Your task to perform on an android device: What's the weather going to be tomorrow? Image 0: 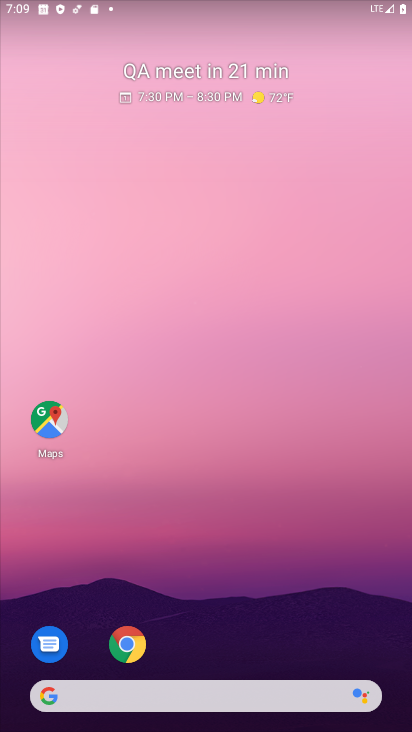
Step 0: drag from (261, 712) to (235, 159)
Your task to perform on an android device: What's the weather going to be tomorrow? Image 1: 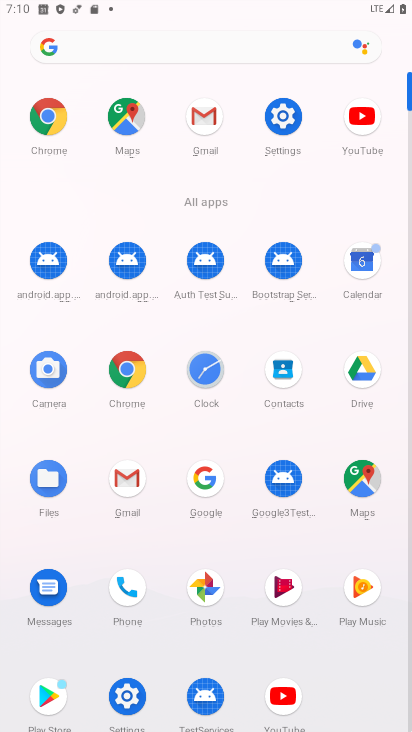
Step 1: click (114, 47)
Your task to perform on an android device: What's the weather going to be tomorrow? Image 2: 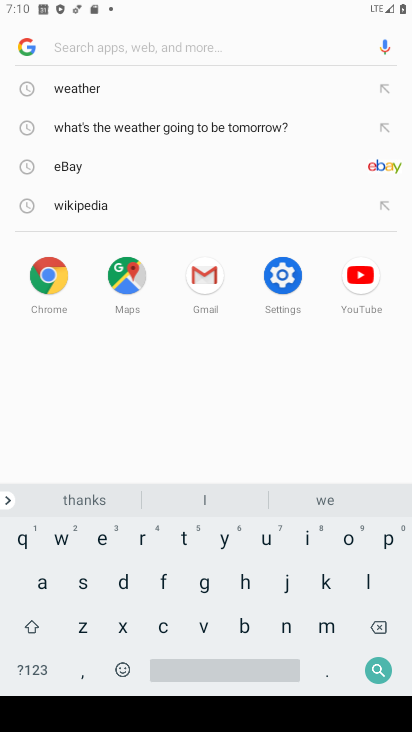
Step 2: click (82, 91)
Your task to perform on an android device: What's the weather going to be tomorrow? Image 3: 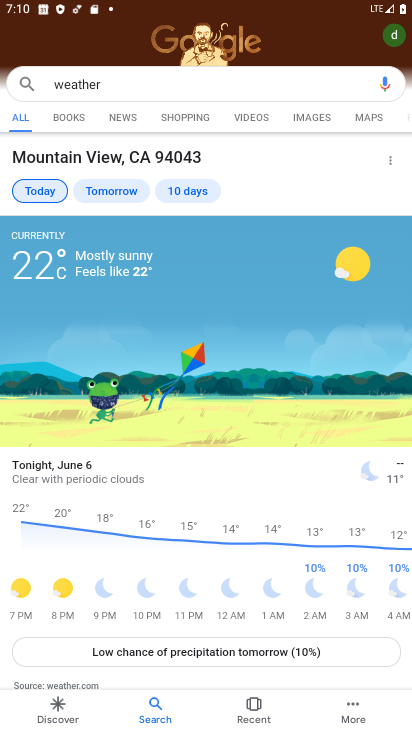
Step 3: click (99, 195)
Your task to perform on an android device: What's the weather going to be tomorrow? Image 4: 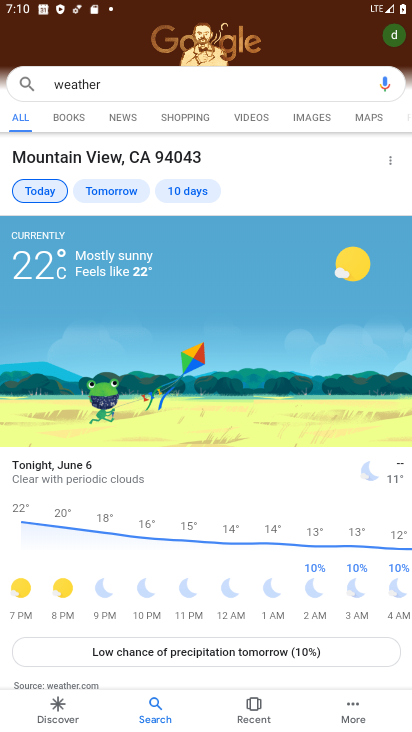
Step 4: click (114, 188)
Your task to perform on an android device: What's the weather going to be tomorrow? Image 5: 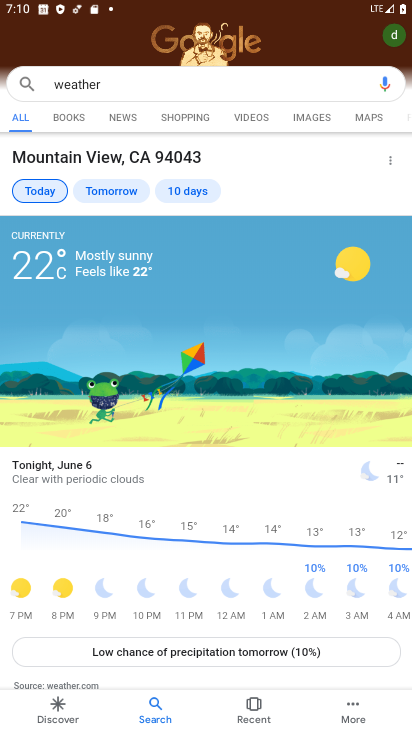
Step 5: click (114, 188)
Your task to perform on an android device: What's the weather going to be tomorrow? Image 6: 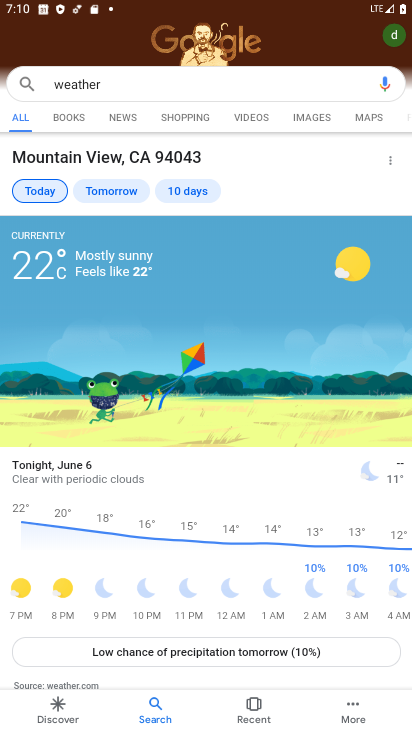
Step 6: click (124, 70)
Your task to perform on an android device: What's the weather going to be tomorrow? Image 7: 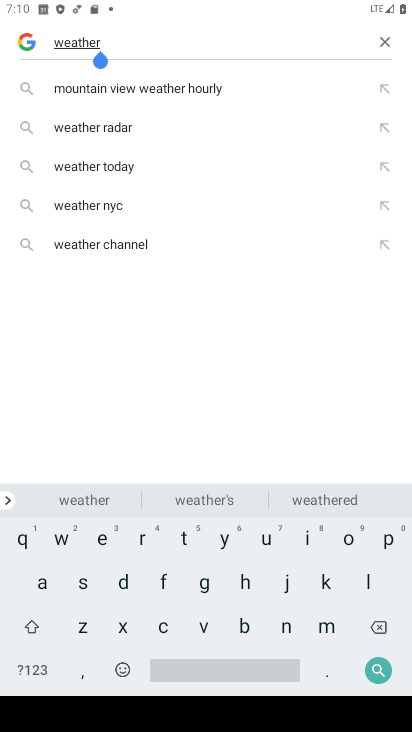
Step 7: click (377, 668)
Your task to perform on an android device: What's the weather going to be tomorrow? Image 8: 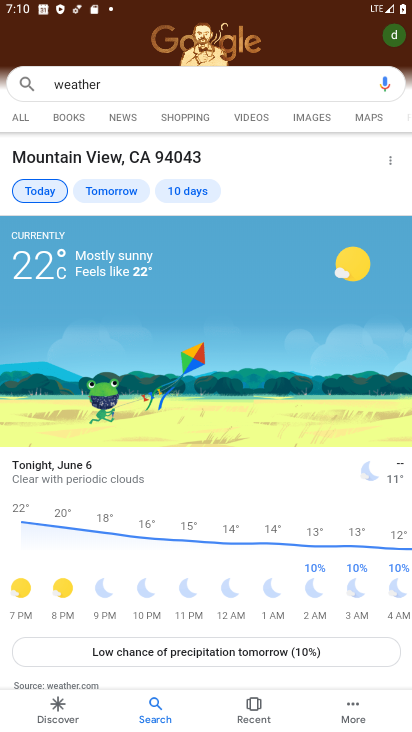
Step 8: click (97, 186)
Your task to perform on an android device: What's the weather going to be tomorrow? Image 9: 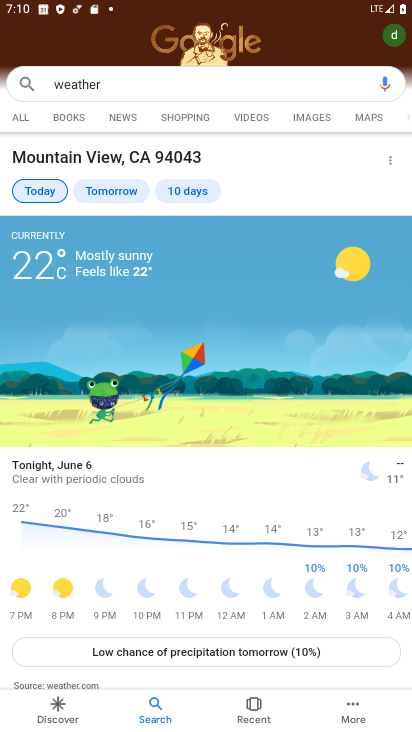
Step 9: click (112, 85)
Your task to perform on an android device: What's the weather going to be tomorrow? Image 10: 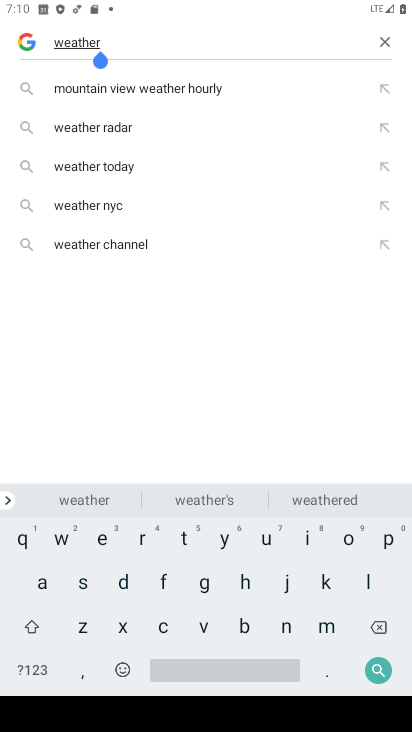
Step 10: click (194, 663)
Your task to perform on an android device: What's the weather going to be tomorrow? Image 11: 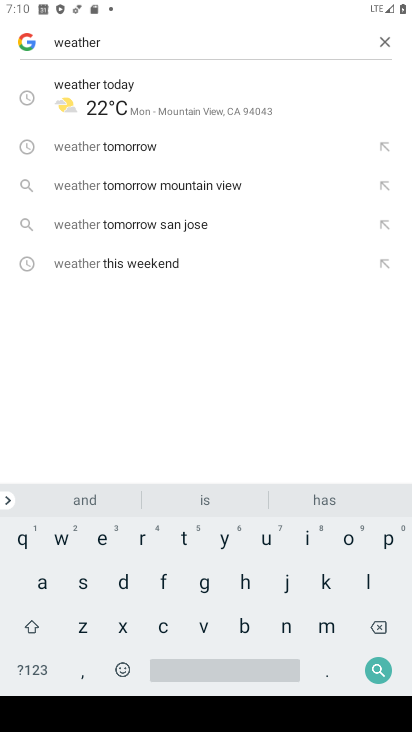
Step 11: click (102, 143)
Your task to perform on an android device: What's the weather going to be tomorrow? Image 12: 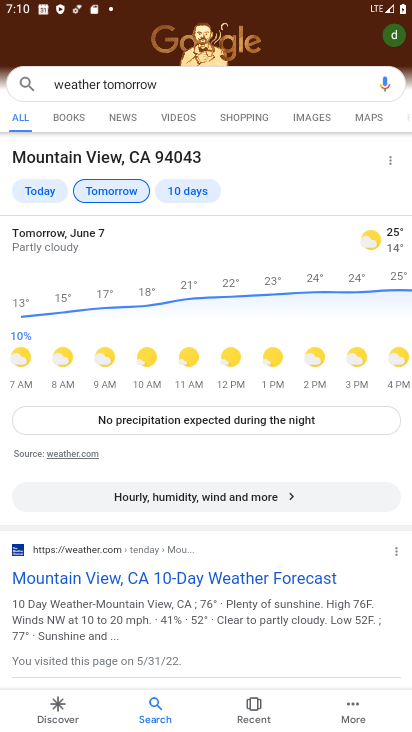
Step 12: task complete